Your task to perform on an android device: Open location settings Image 0: 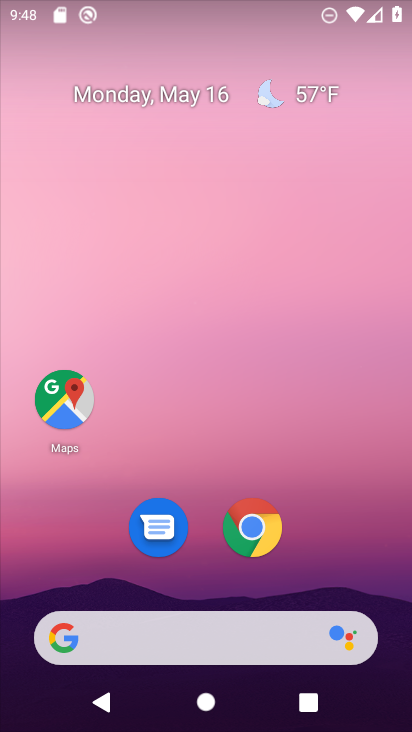
Step 0: drag from (393, 634) to (347, 250)
Your task to perform on an android device: Open location settings Image 1: 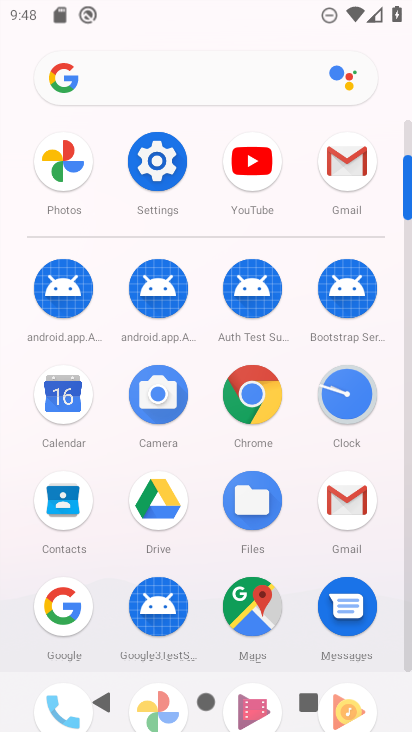
Step 1: click (153, 175)
Your task to perform on an android device: Open location settings Image 2: 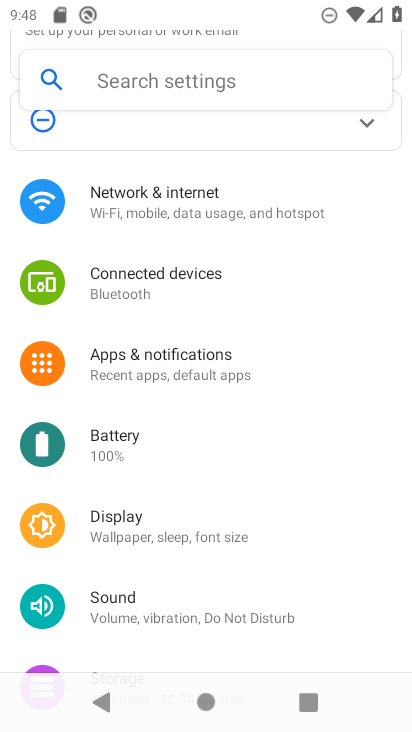
Step 2: drag from (321, 633) to (309, 395)
Your task to perform on an android device: Open location settings Image 3: 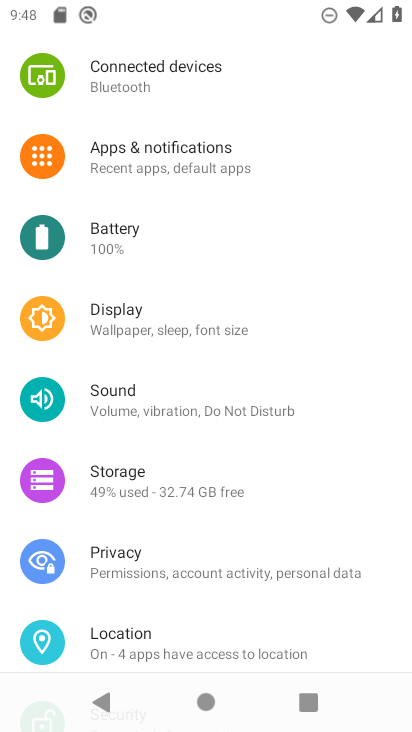
Step 3: drag from (347, 644) to (348, 436)
Your task to perform on an android device: Open location settings Image 4: 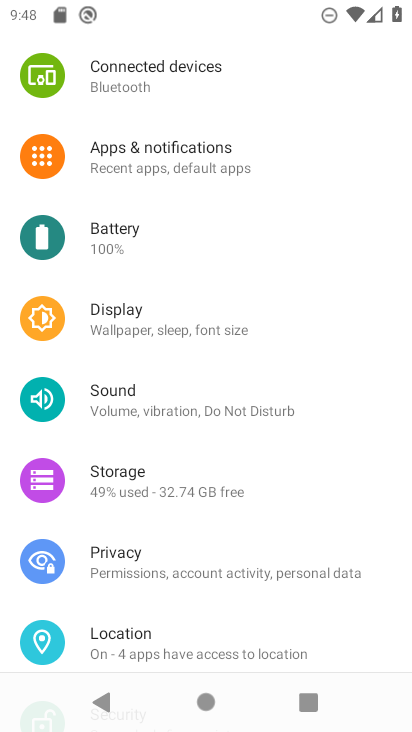
Step 4: drag from (352, 646) to (352, 424)
Your task to perform on an android device: Open location settings Image 5: 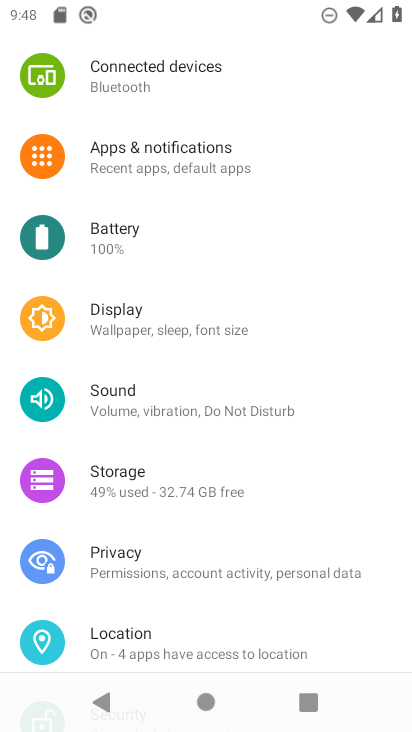
Step 5: click (93, 637)
Your task to perform on an android device: Open location settings Image 6: 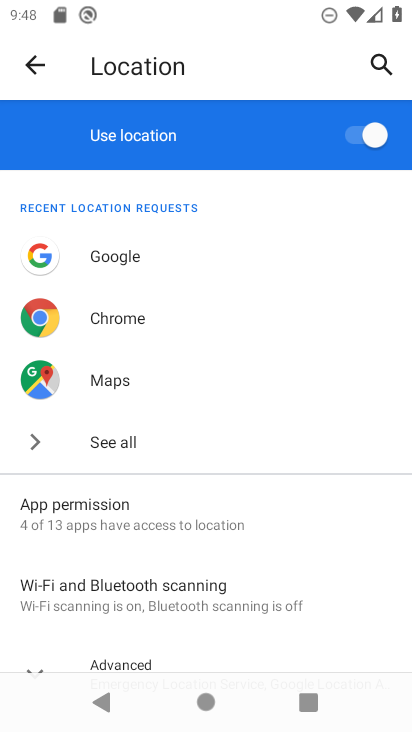
Step 6: click (346, 459)
Your task to perform on an android device: Open location settings Image 7: 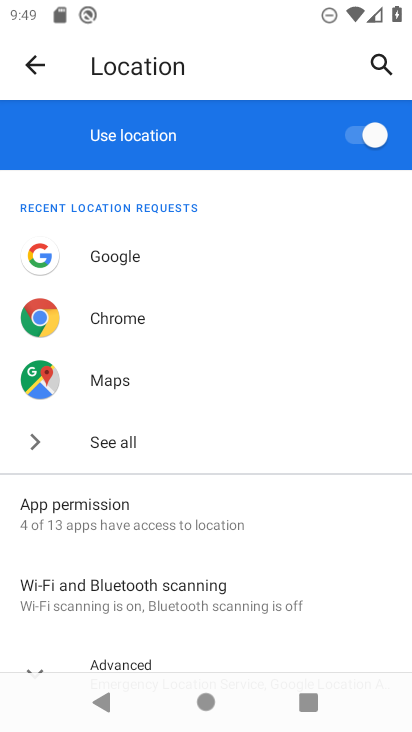
Step 7: task complete